Your task to perform on an android device: manage bookmarks in the chrome app Image 0: 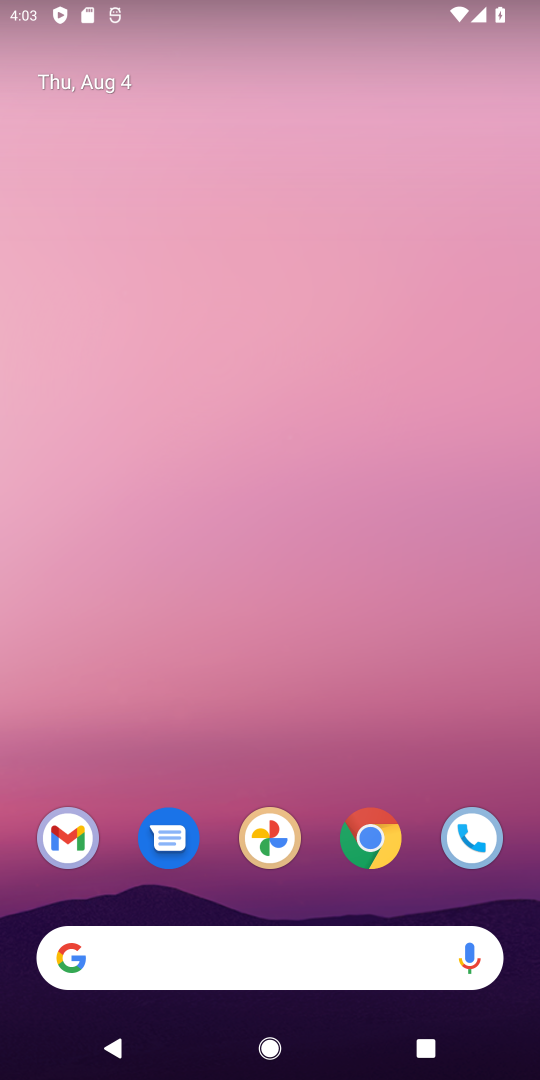
Step 0: click (367, 855)
Your task to perform on an android device: manage bookmarks in the chrome app Image 1: 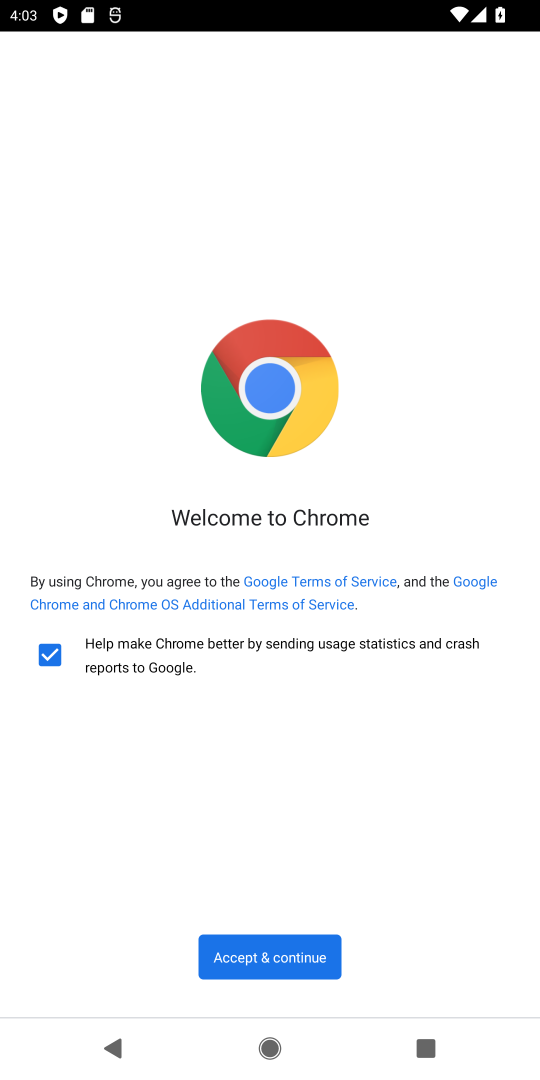
Step 1: click (300, 964)
Your task to perform on an android device: manage bookmarks in the chrome app Image 2: 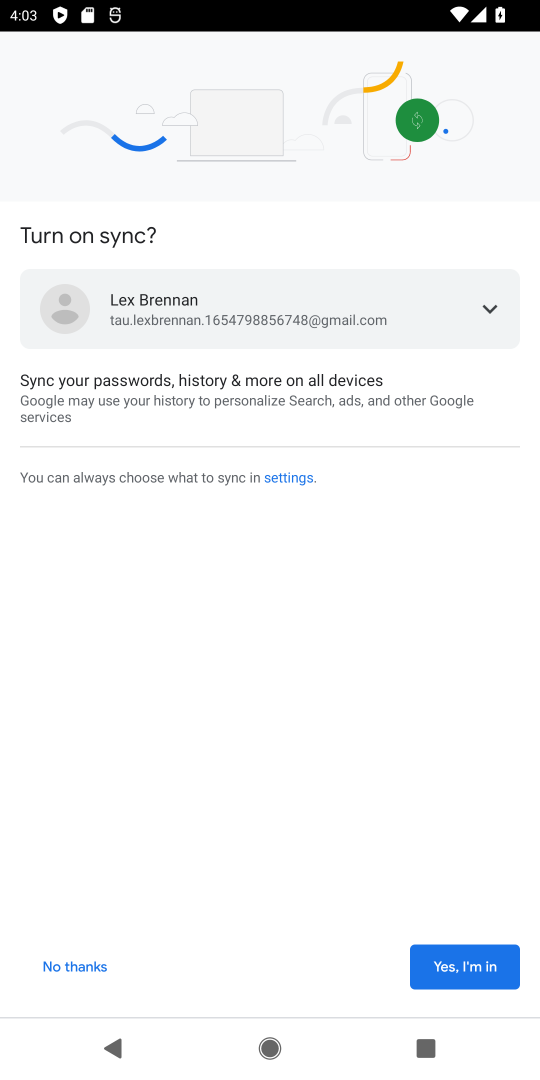
Step 2: click (90, 974)
Your task to perform on an android device: manage bookmarks in the chrome app Image 3: 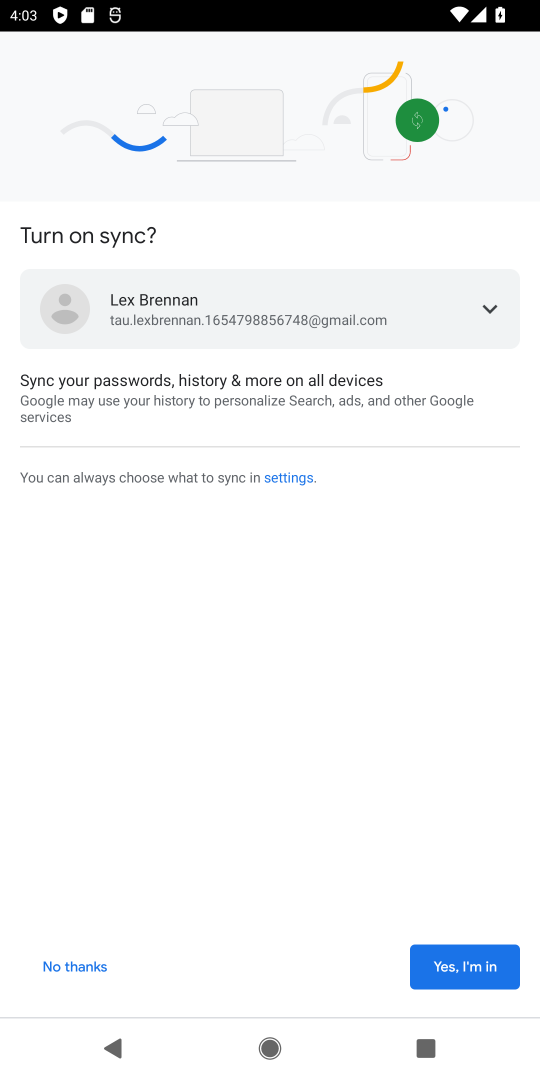
Step 3: click (65, 959)
Your task to perform on an android device: manage bookmarks in the chrome app Image 4: 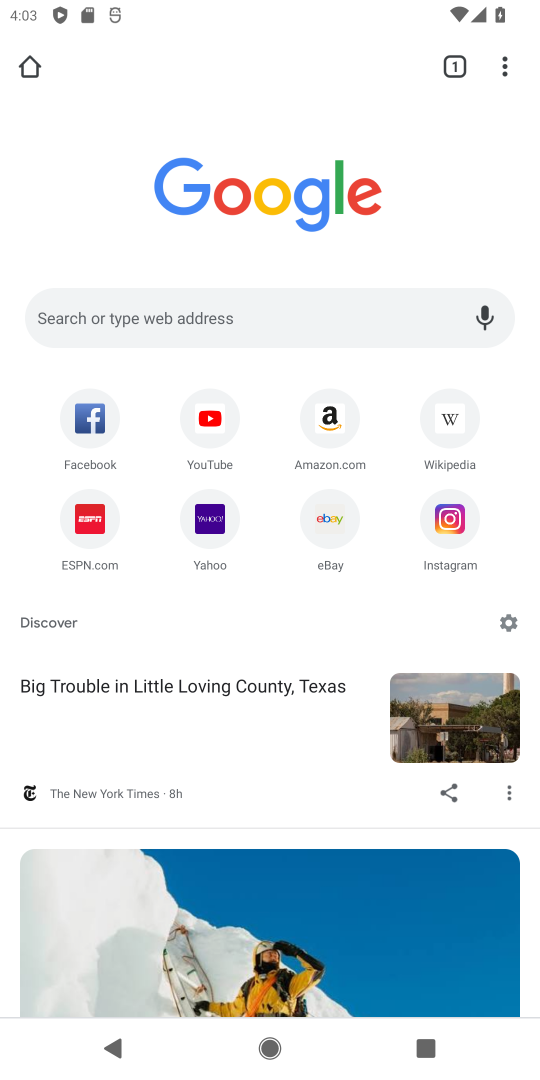
Step 4: click (509, 87)
Your task to perform on an android device: manage bookmarks in the chrome app Image 5: 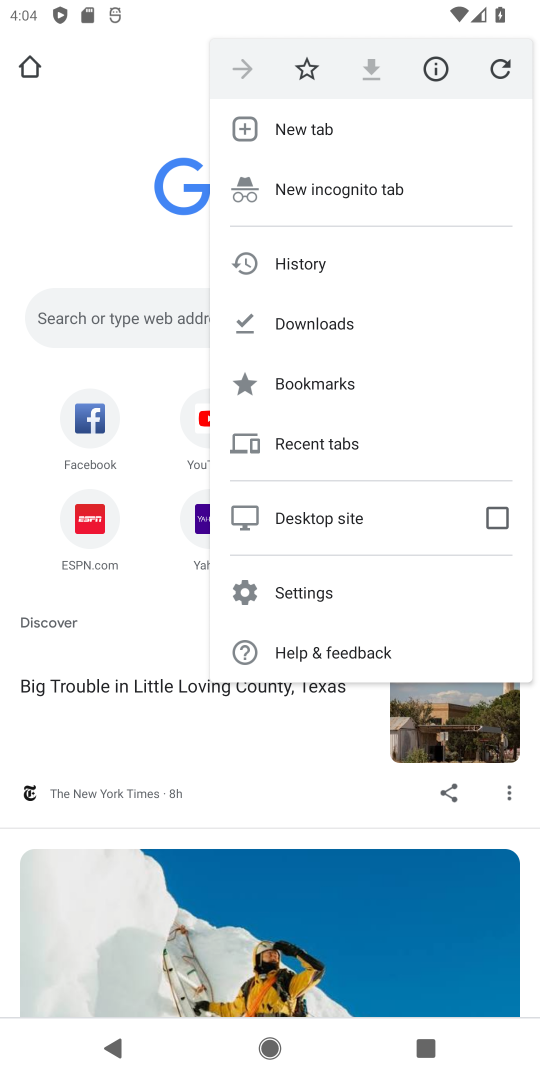
Step 5: click (331, 389)
Your task to perform on an android device: manage bookmarks in the chrome app Image 6: 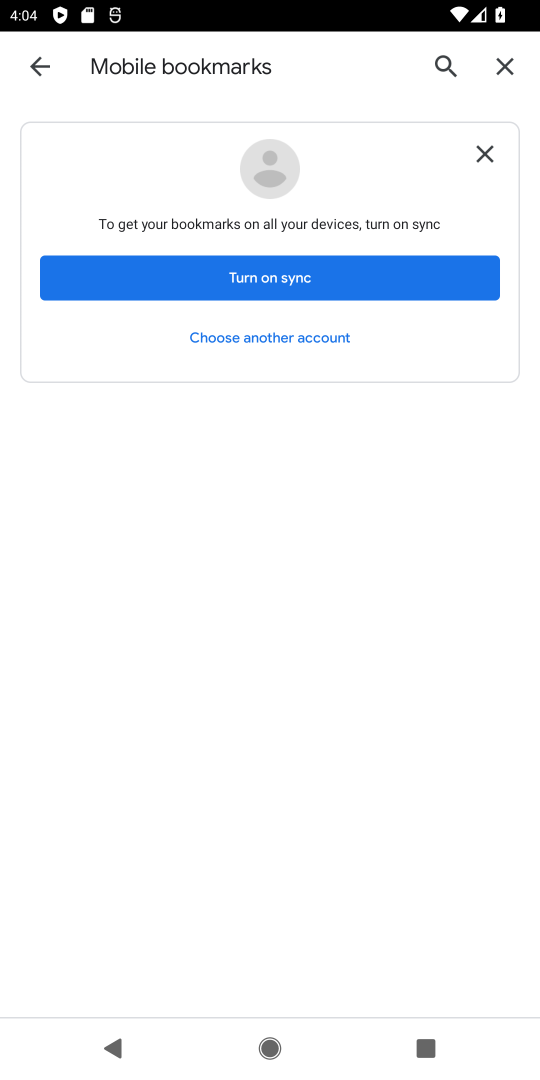
Step 6: click (380, 280)
Your task to perform on an android device: manage bookmarks in the chrome app Image 7: 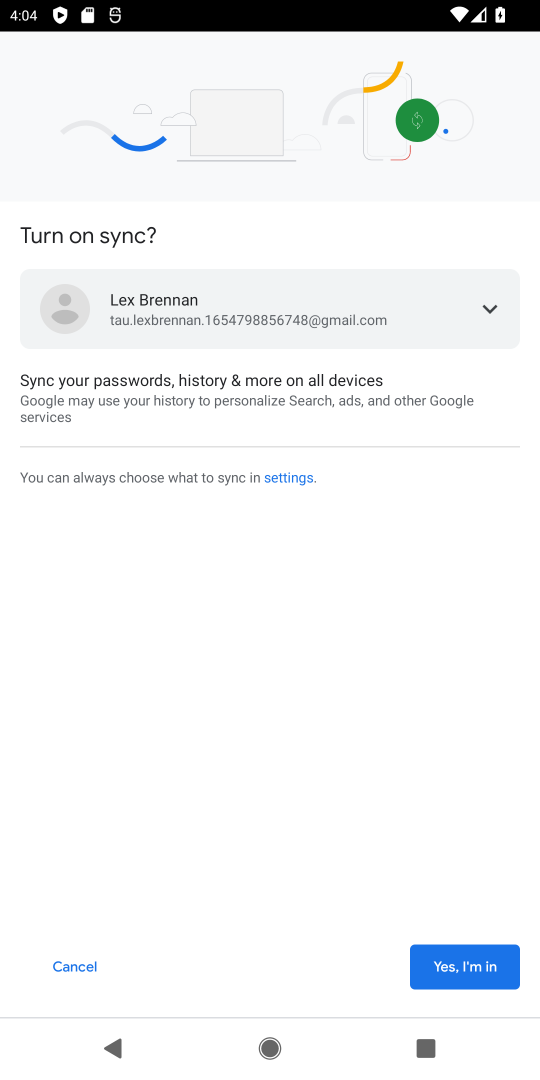
Step 7: click (491, 961)
Your task to perform on an android device: manage bookmarks in the chrome app Image 8: 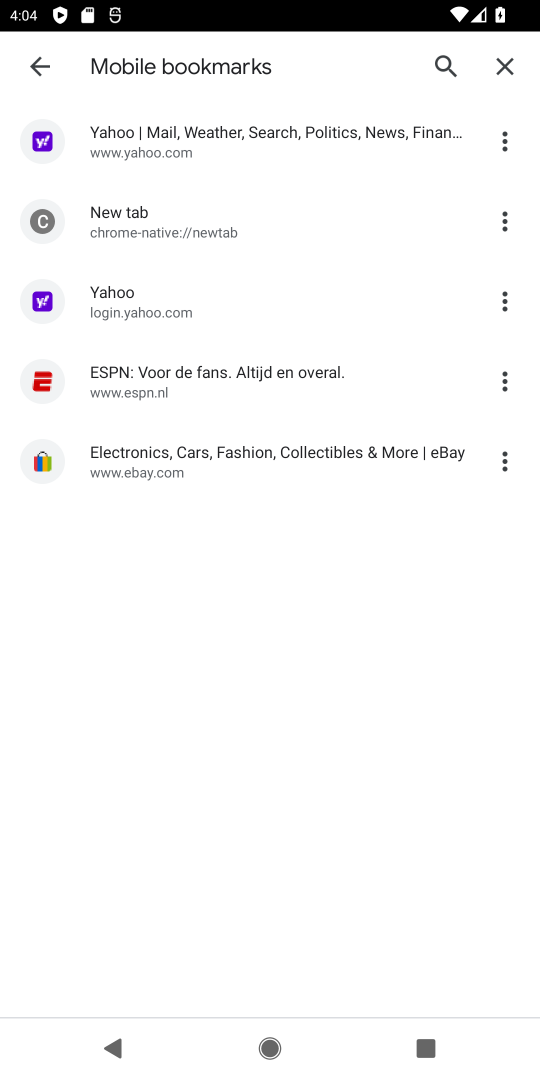
Step 8: click (45, 378)
Your task to perform on an android device: manage bookmarks in the chrome app Image 9: 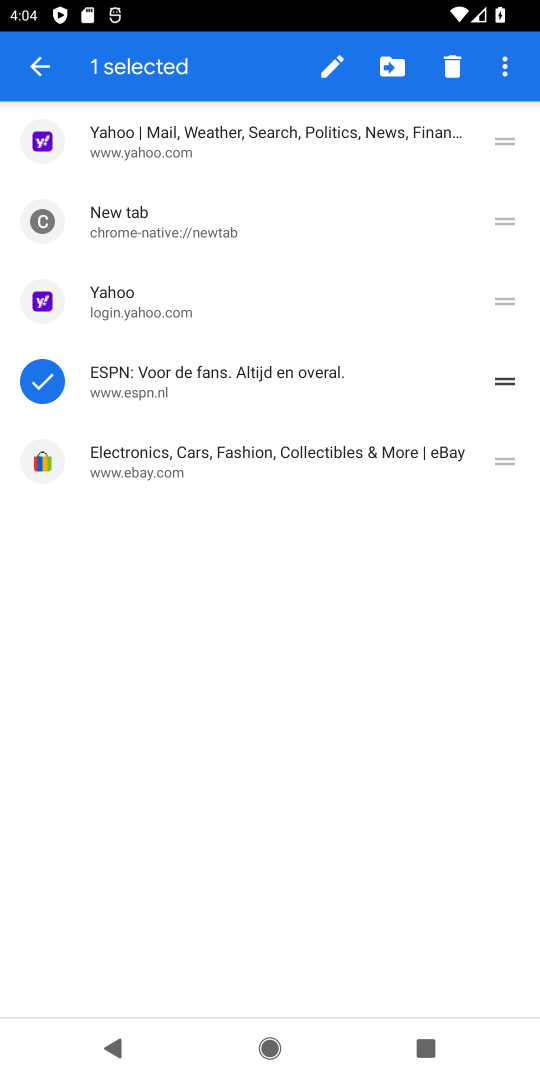
Step 9: click (53, 293)
Your task to perform on an android device: manage bookmarks in the chrome app Image 10: 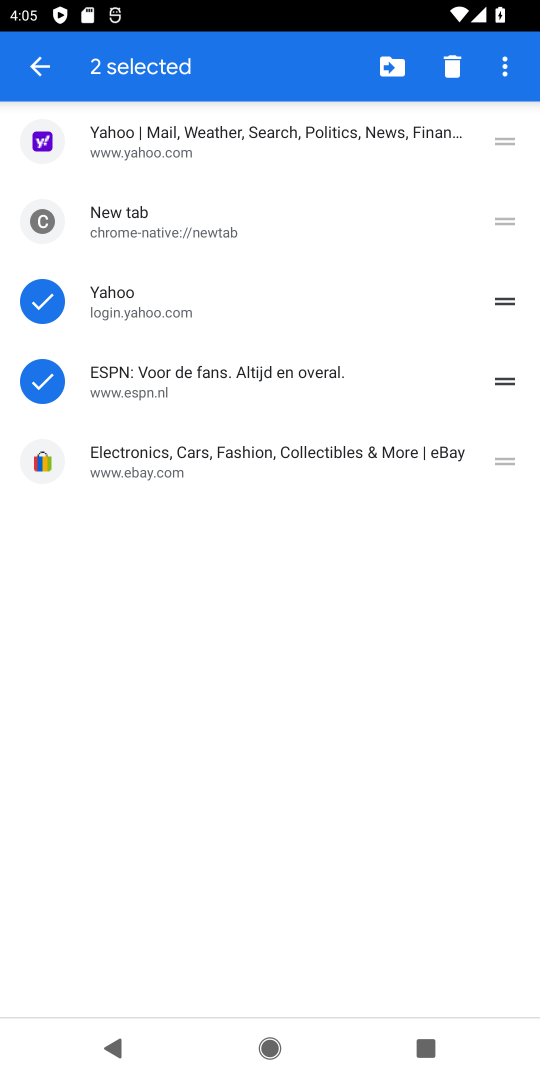
Step 10: click (444, 75)
Your task to perform on an android device: manage bookmarks in the chrome app Image 11: 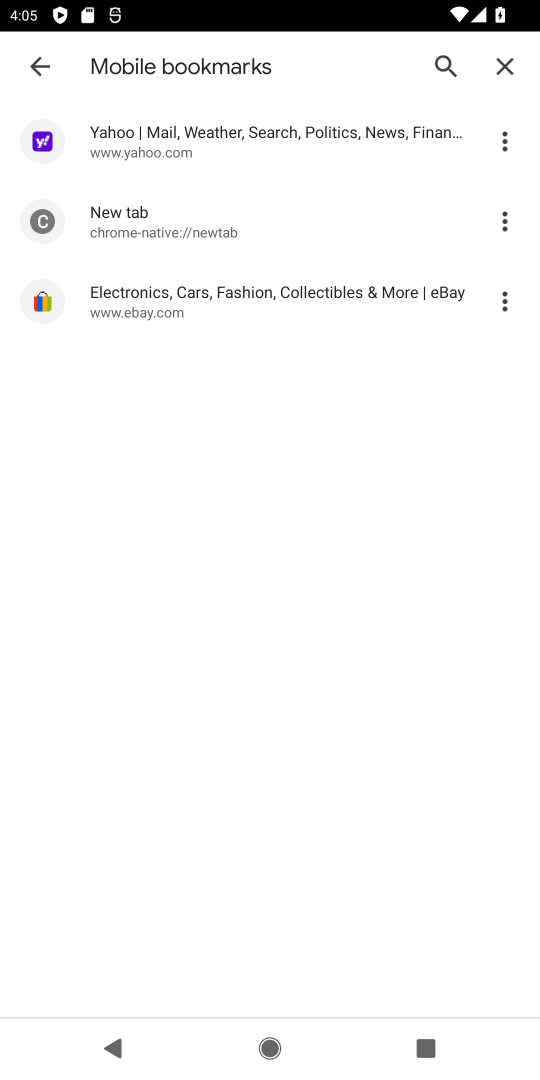
Step 11: task complete